Your task to perform on an android device: Search for Italian restaurants on Maps Image 0: 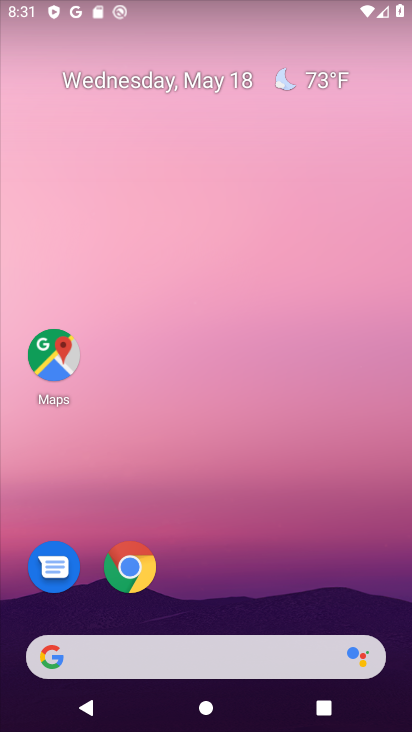
Step 0: drag from (266, 398) to (276, 7)
Your task to perform on an android device: Search for Italian restaurants on Maps Image 1: 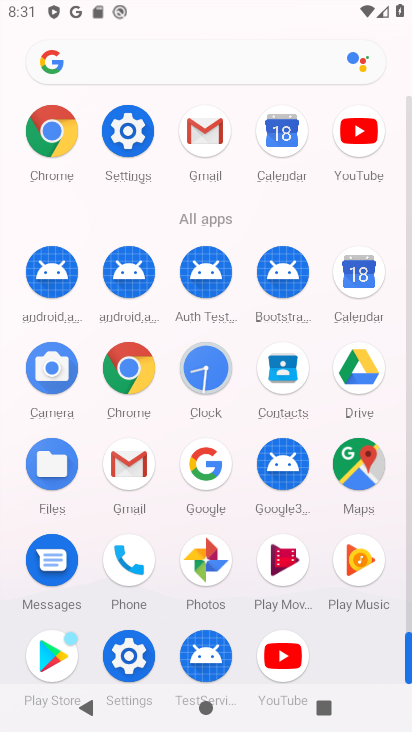
Step 1: drag from (4, 590) to (15, 251)
Your task to perform on an android device: Search for Italian restaurants on Maps Image 2: 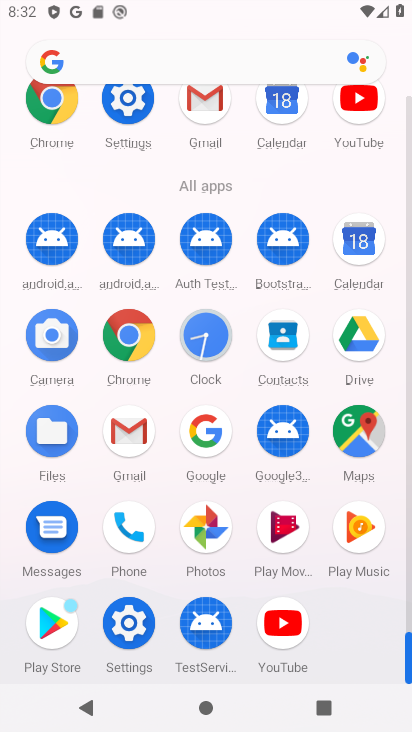
Step 2: click (363, 423)
Your task to perform on an android device: Search for Italian restaurants on Maps Image 3: 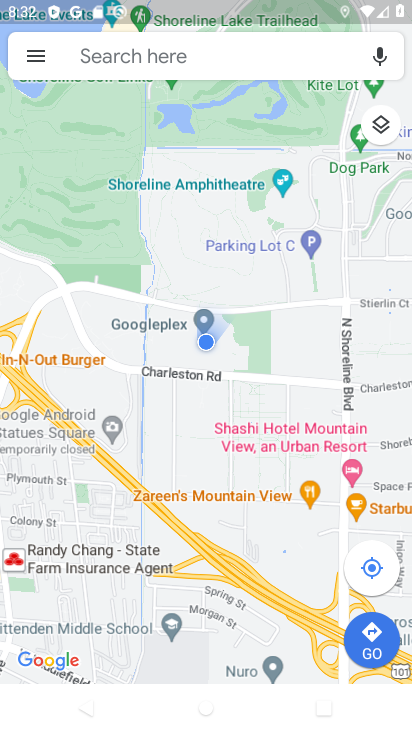
Step 3: click (202, 55)
Your task to perform on an android device: Search for Italian restaurants on Maps Image 4: 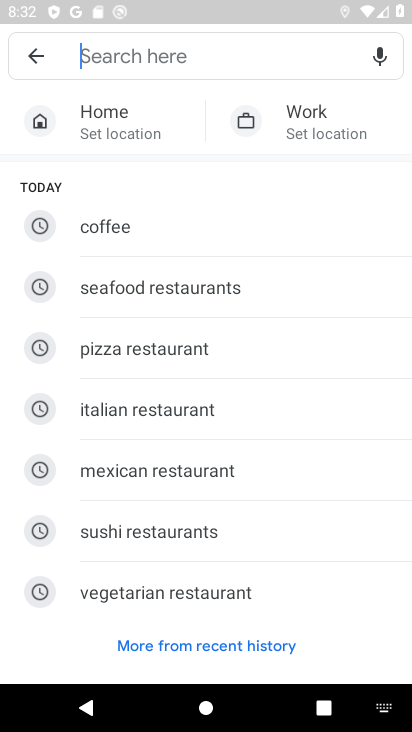
Step 4: click (169, 406)
Your task to perform on an android device: Search for Italian restaurants on Maps Image 5: 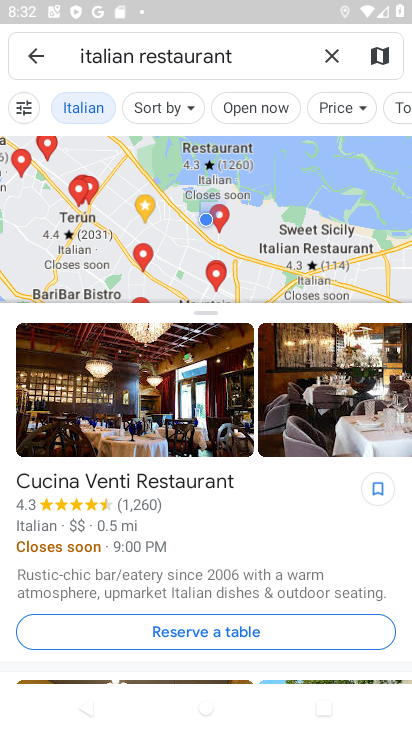
Step 5: task complete